Your task to perform on an android device: Open Google Maps Image 0: 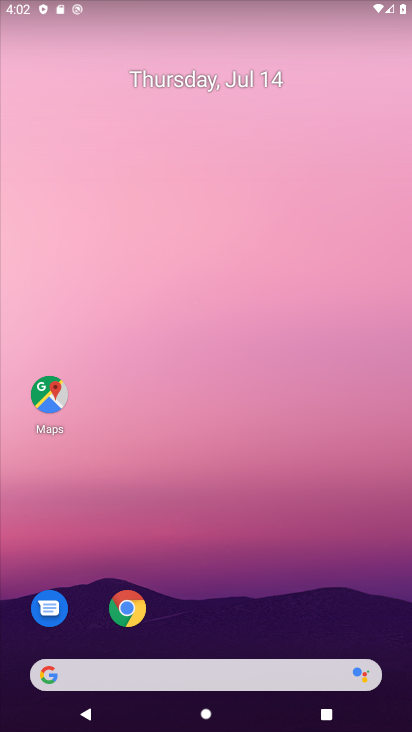
Step 0: click (41, 391)
Your task to perform on an android device: Open Google Maps Image 1: 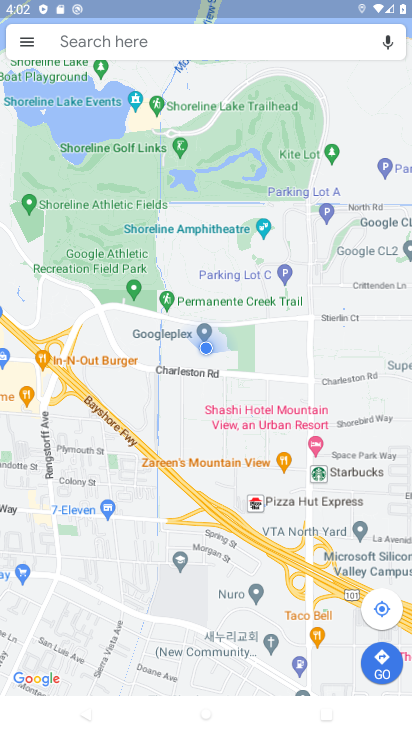
Step 1: task complete